Your task to perform on an android device: Open wifi settings Image 0: 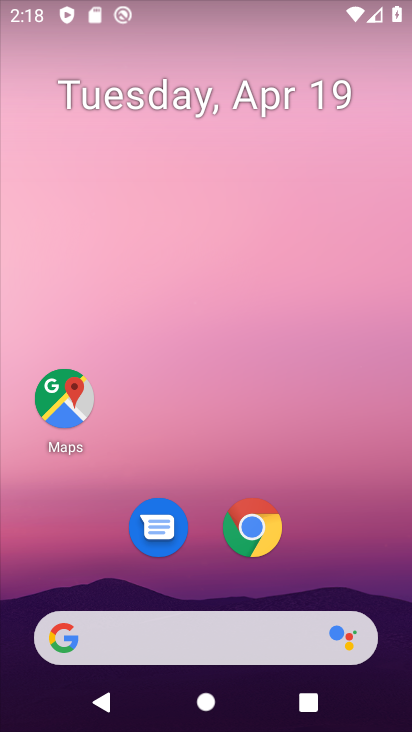
Step 0: drag from (200, 608) to (318, 184)
Your task to perform on an android device: Open wifi settings Image 1: 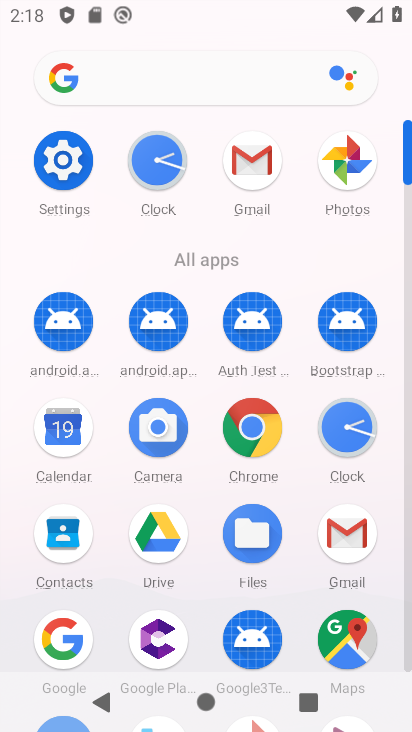
Step 1: click (65, 171)
Your task to perform on an android device: Open wifi settings Image 2: 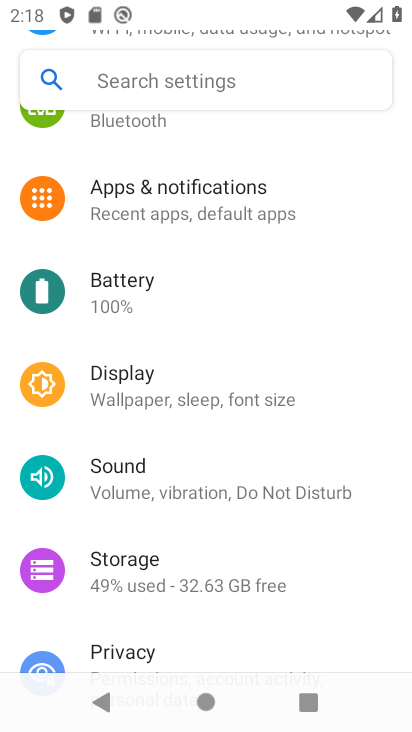
Step 2: drag from (269, 221) to (304, 603)
Your task to perform on an android device: Open wifi settings Image 3: 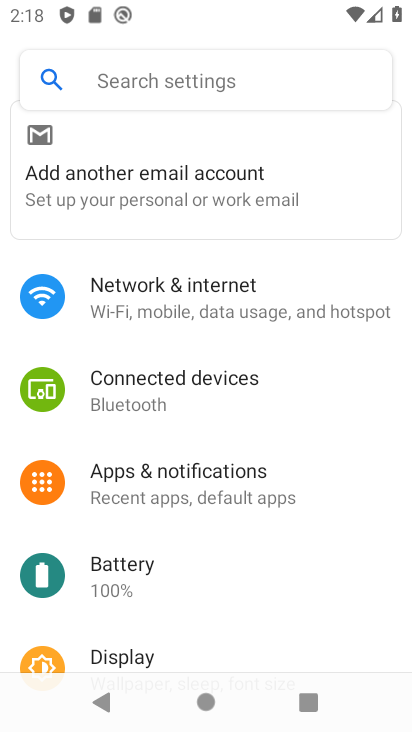
Step 3: click (281, 303)
Your task to perform on an android device: Open wifi settings Image 4: 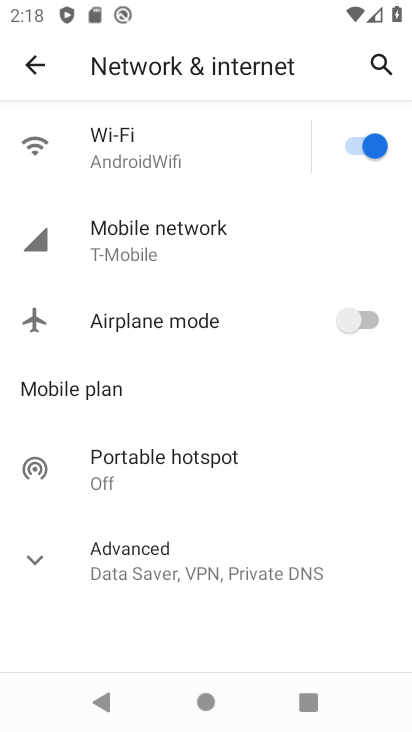
Step 4: click (149, 138)
Your task to perform on an android device: Open wifi settings Image 5: 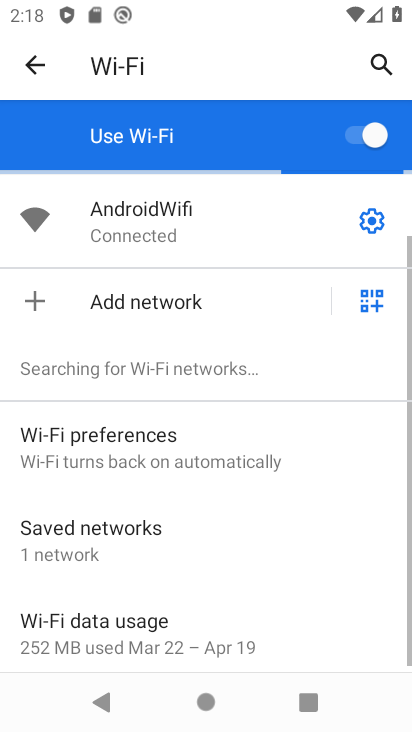
Step 5: click (379, 221)
Your task to perform on an android device: Open wifi settings Image 6: 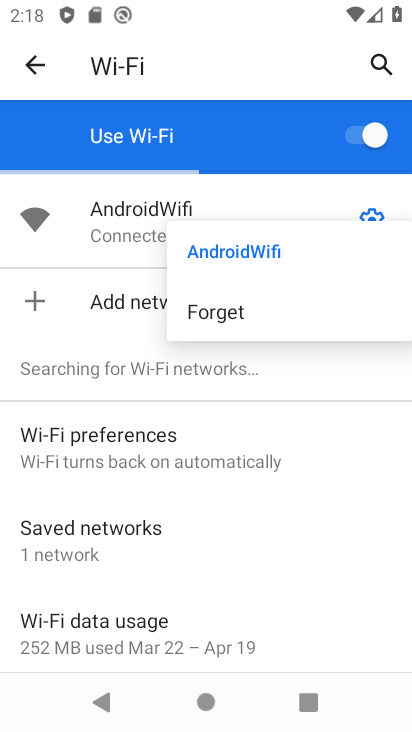
Step 6: click (310, 407)
Your task to perform on an android device: Open wifi settings Image 7: 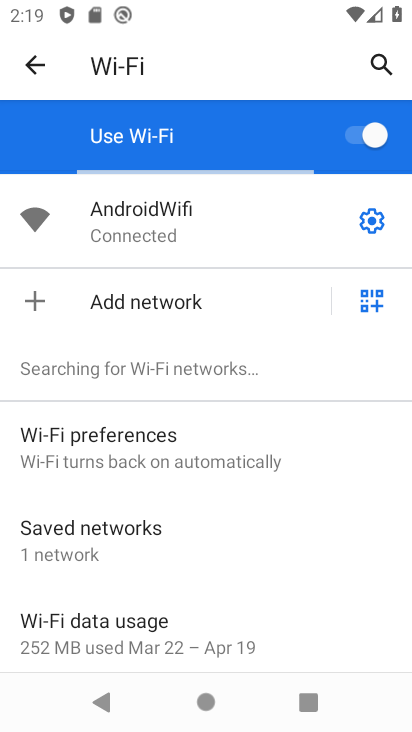
Step 7: click (369, 218)
Your task to perform on an android device: Open wifi settings Image 8: 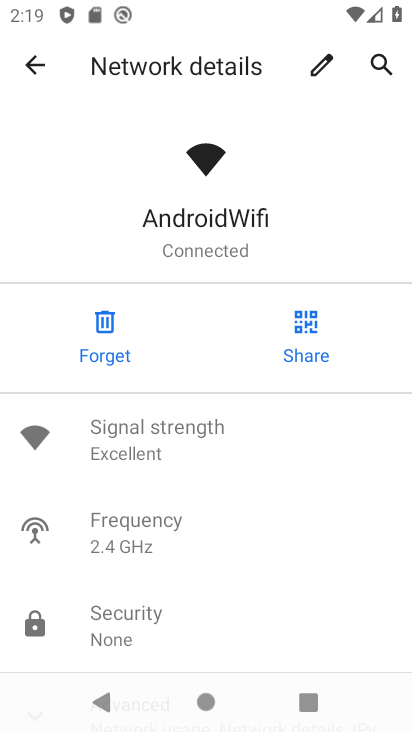
Step 8: drag from (250, 603) to (235, 248)
Your task to perform on an android device: Open wifi settings Image 9: 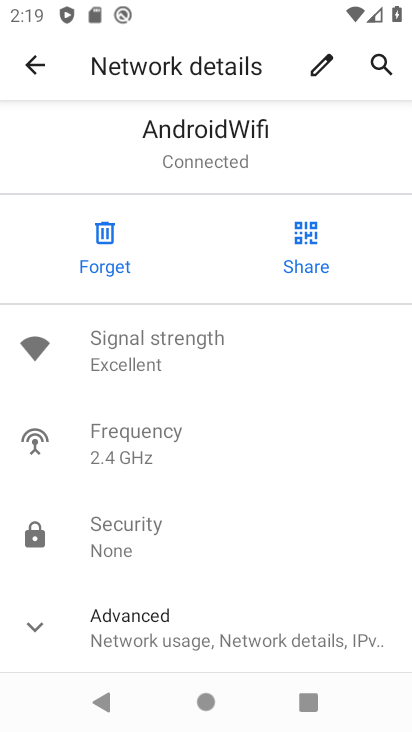
Step 9: click (236, 641)
Your task to perform on an android device: Open wifi settings Image 10: 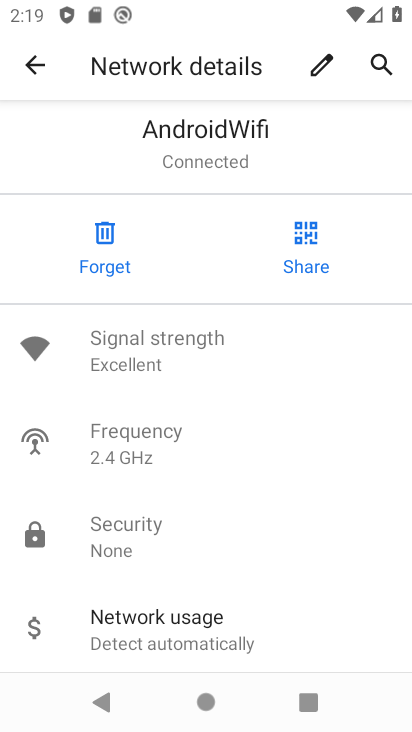
Step 10: task complete